Your task to perform on an android device: Do I have any events tomorrow? Image 0: 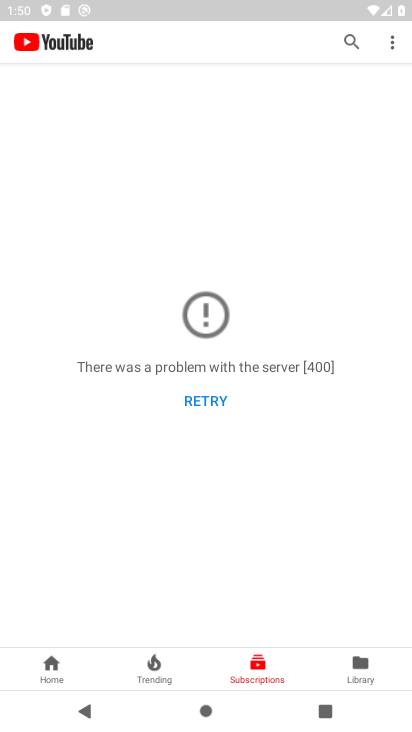
Step 0: press home button
Your task to perform on an android device: Do I have any events tomorrow? Image 1: 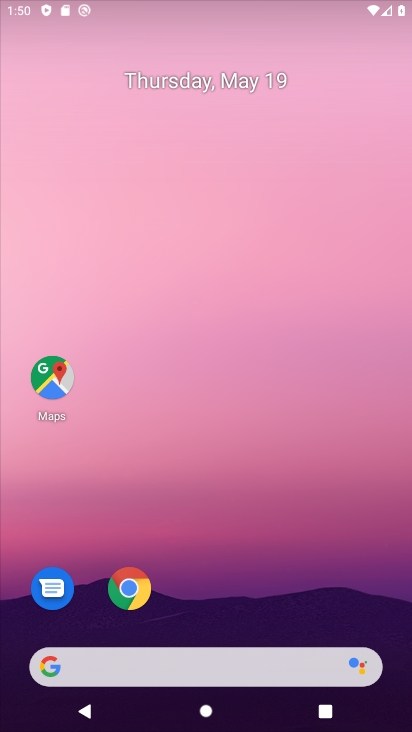
Step 1: drag from (227, 582) to (224, 63)
Your task to perform on an android device: Do I have any events tomorrow? Image 2: 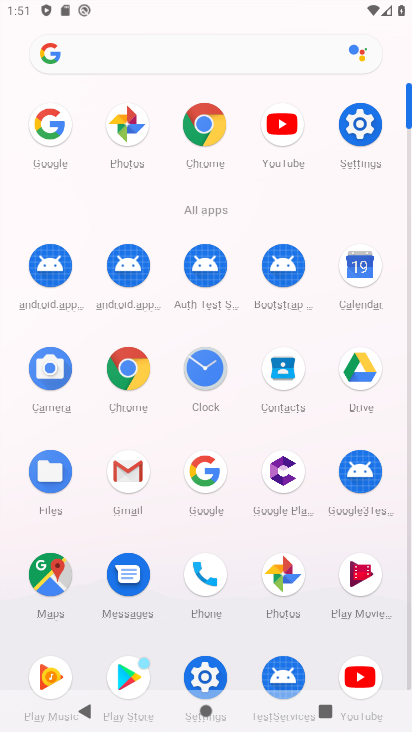
Step 2: drag from (162, 515) to (161, 325)
Your task to perform on an android device: Do I have any events tomorrow? Image 3: 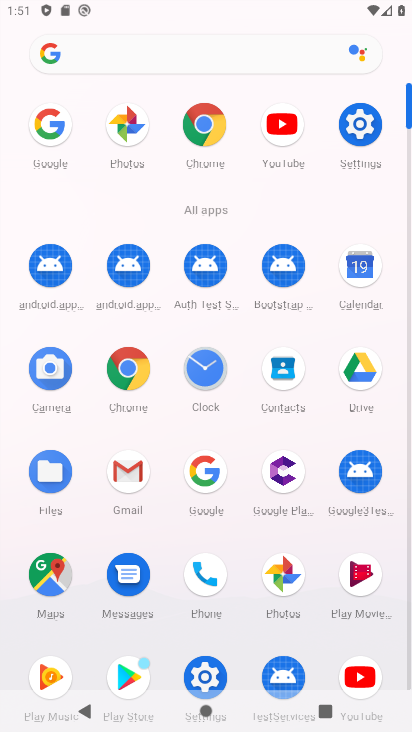
Step 3: click (363, 267)
Your task to perform on an android device: Do I have any events tomorrow? Image 4: 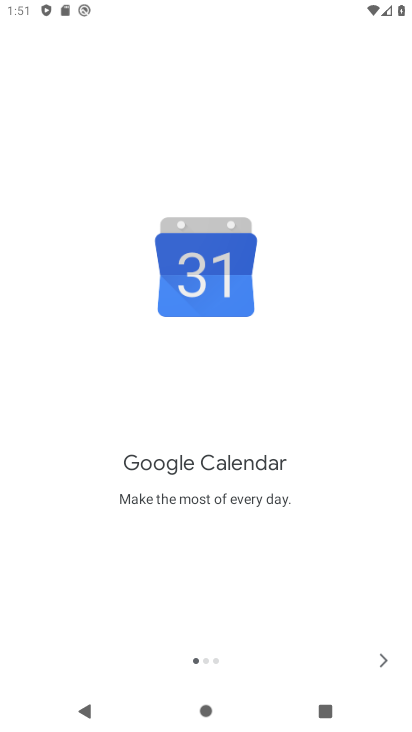
Step 4: click (382, 665)
Your task to perform on an android device: Do I have any events tomorrow? Image 5: 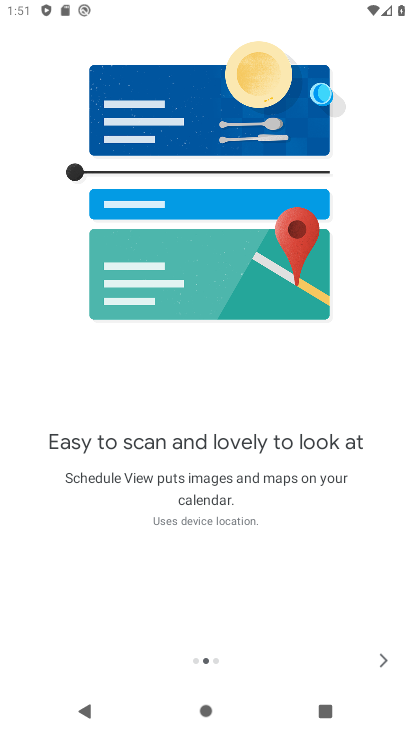
Step 5: click (381, 665)
Your task to perform on an android device: Do I have any events tomorrow? Image 6: 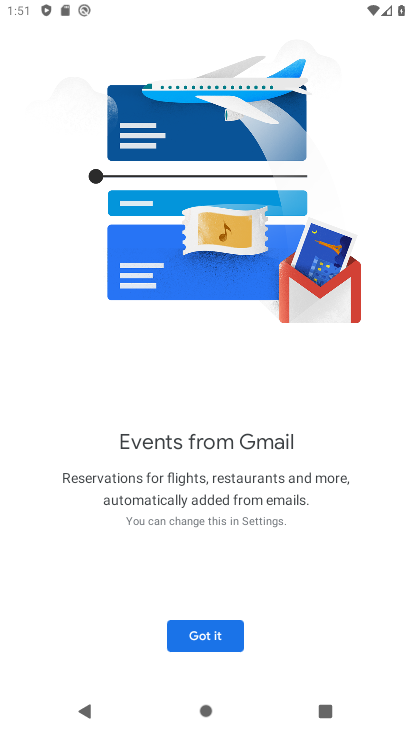
Step 6: click (209, 639)
Your task to perform on an android device: Do I have any events tomorrow? Image 7: 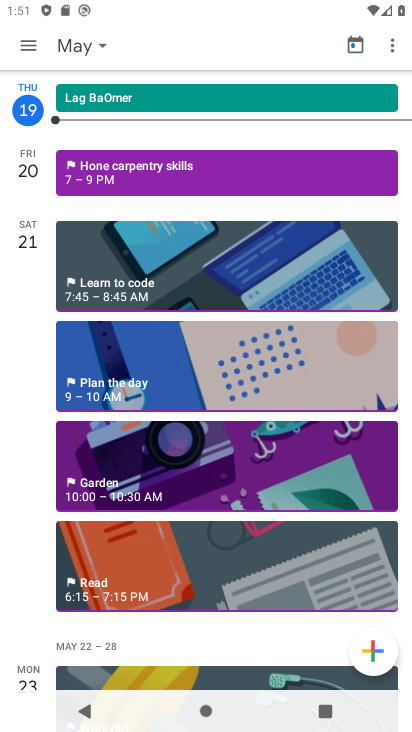
Step 7: click (96, 52)
Your task to perform on an android device: Do I have any events tomorrow? Image 8: 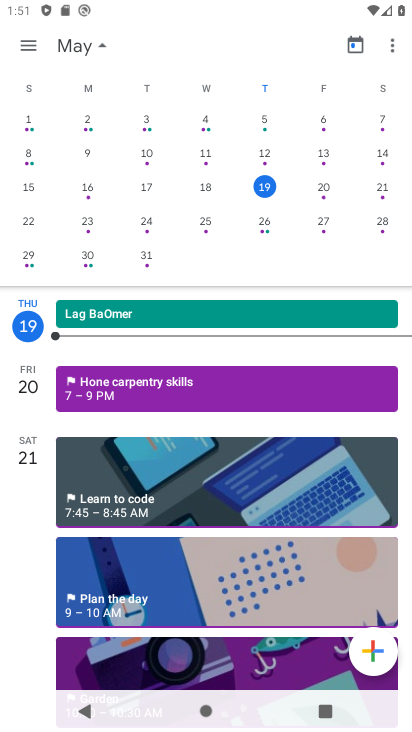
Step 8: click (324, 185)
Your task to perform on an android device: Do I have any events tomorrow? Image 9: 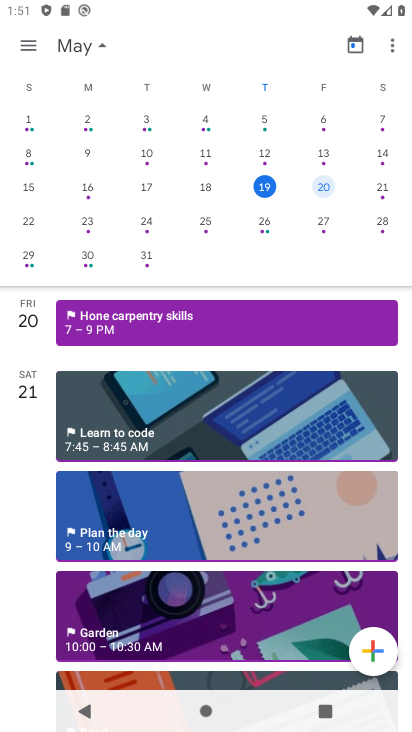
Step 9: task complete